Your task to perform on an android device: change notifications settings Image 0: 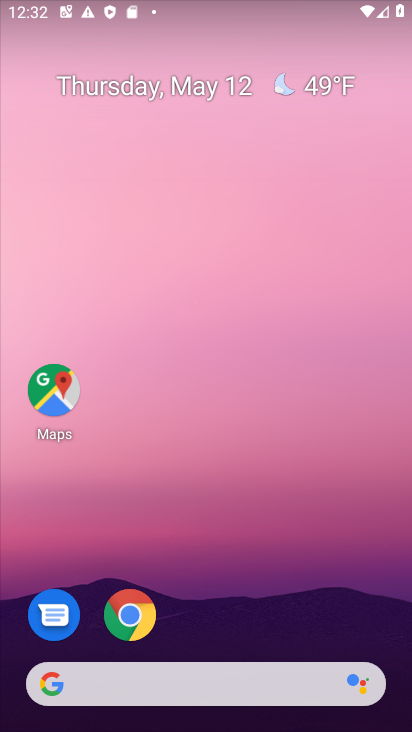
Step 0: click (207, 312)
Your task to perform on an android device: change notifications settings Image 1: 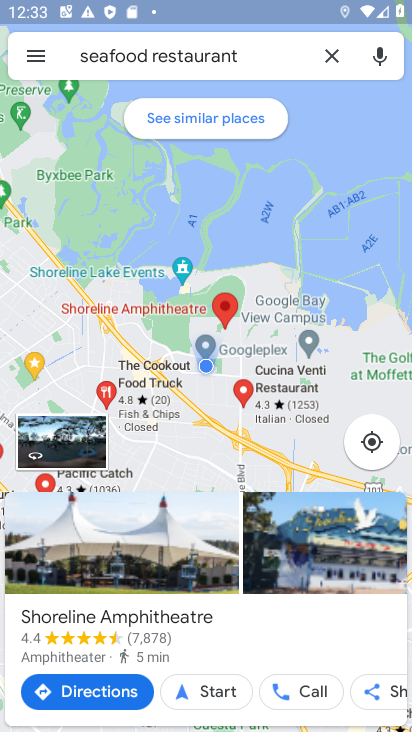
Step 1: click (146, 344)
Your task to perform on an android device: change notifications settings Image 2: 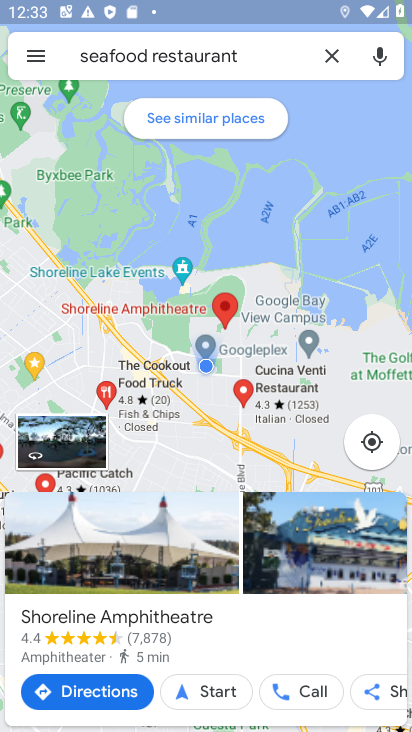
Step 2: task complete